Your task to perform on an android device: Add "bose soundlink mini" to the cart on bestbuy.com Image 0: 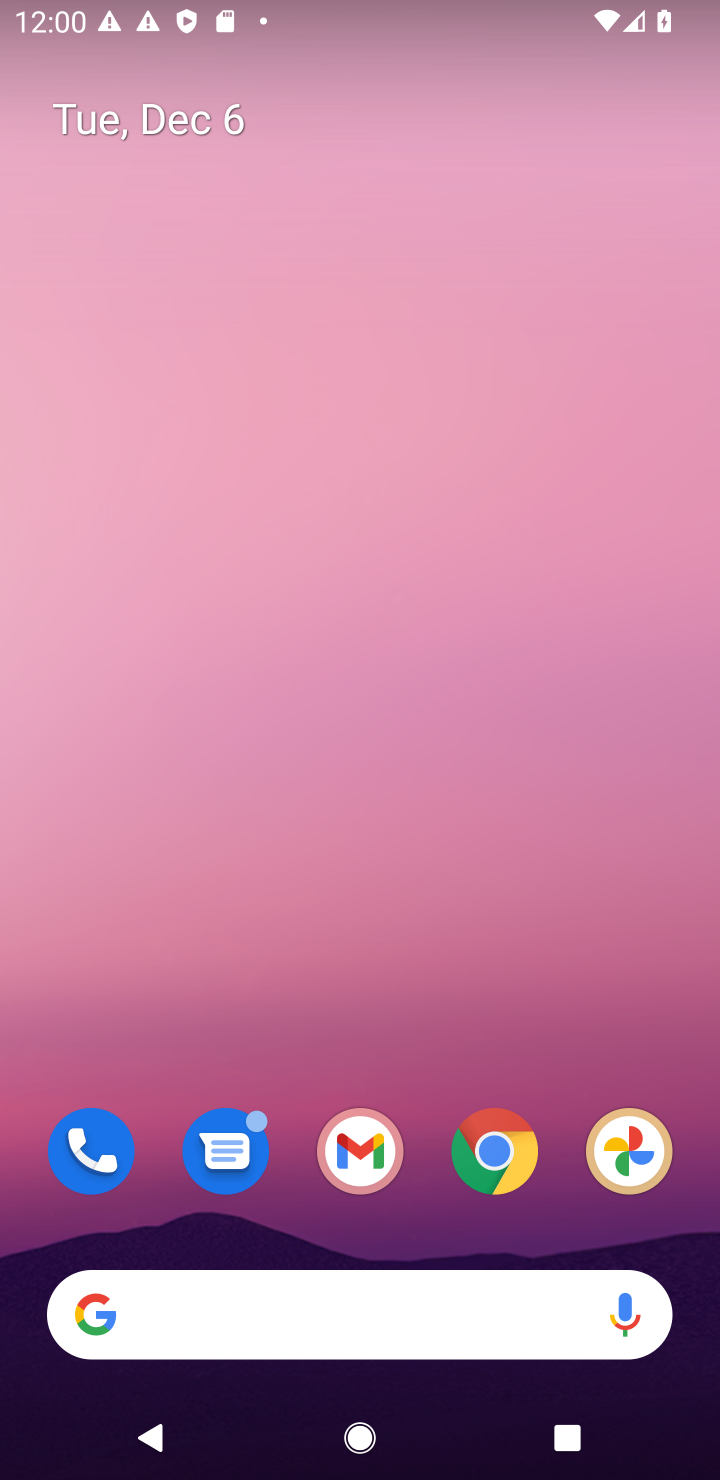
Step 0: click (497, 1178)
Your task to perform on an android device: Add "bose soundlink mini" to the cart on bestbuy.com Image 1: 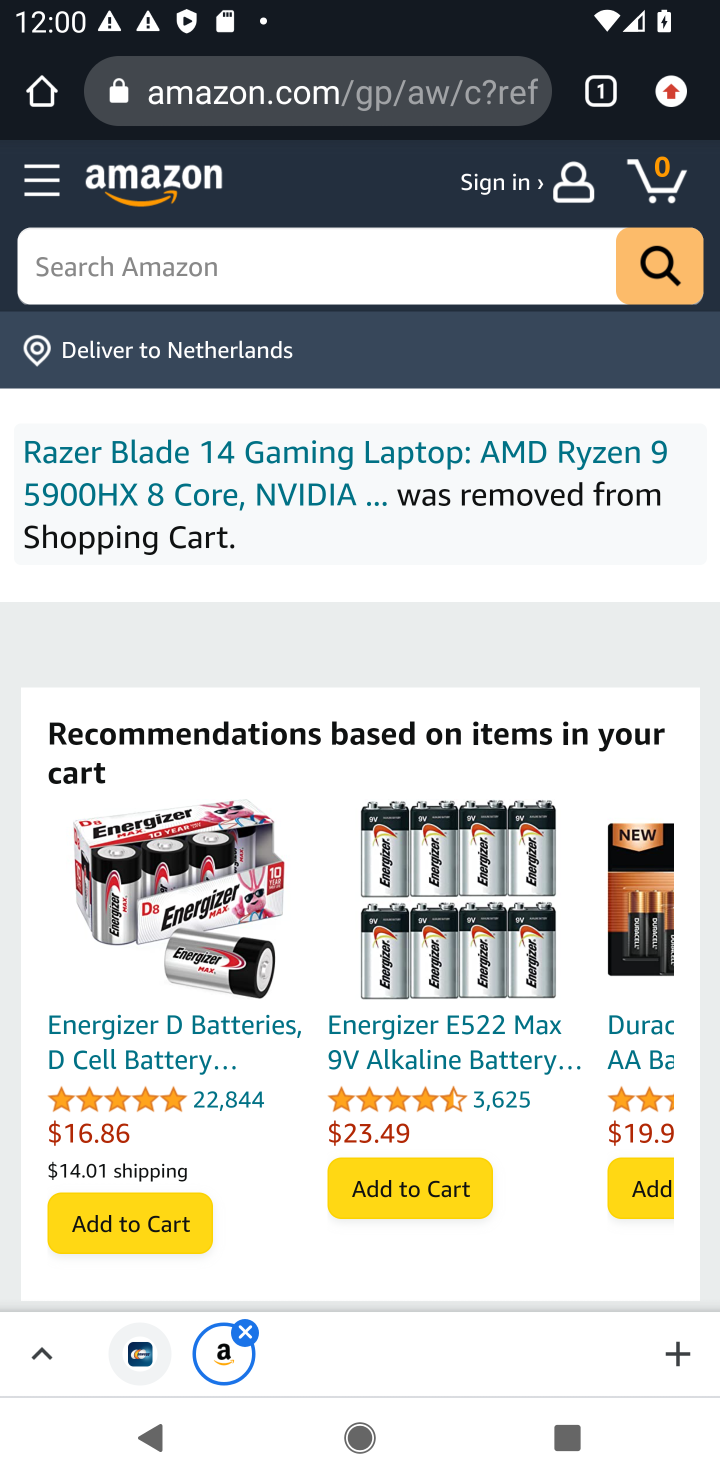
Step 1: click (264, 104)
Your task to perform on an android device: Add "bose soundlink mini" to the cart on bestbuy.com Image 2: 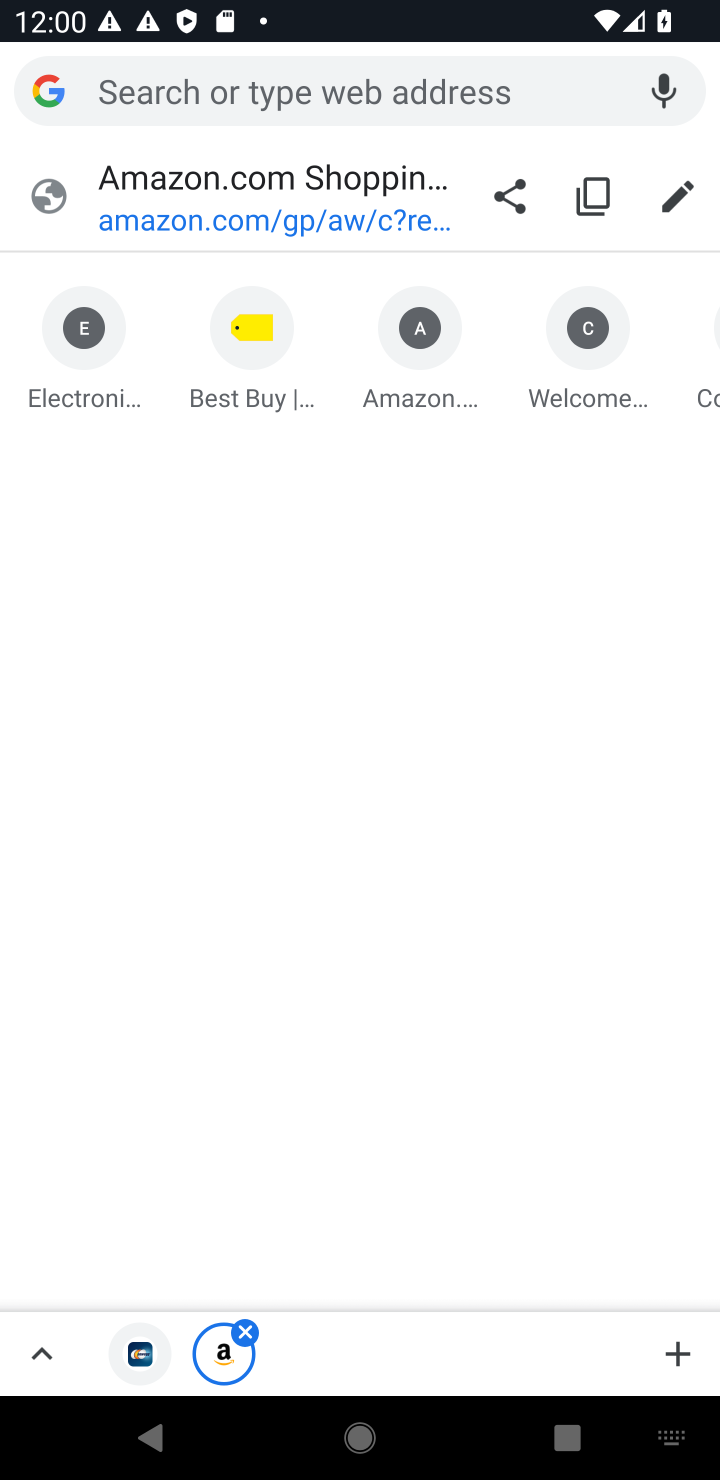
Step 2: click (258, 381)
Your task to perform on an android device: Add "bose soundlink mini" to the cart on bestbuy.com Image 3: 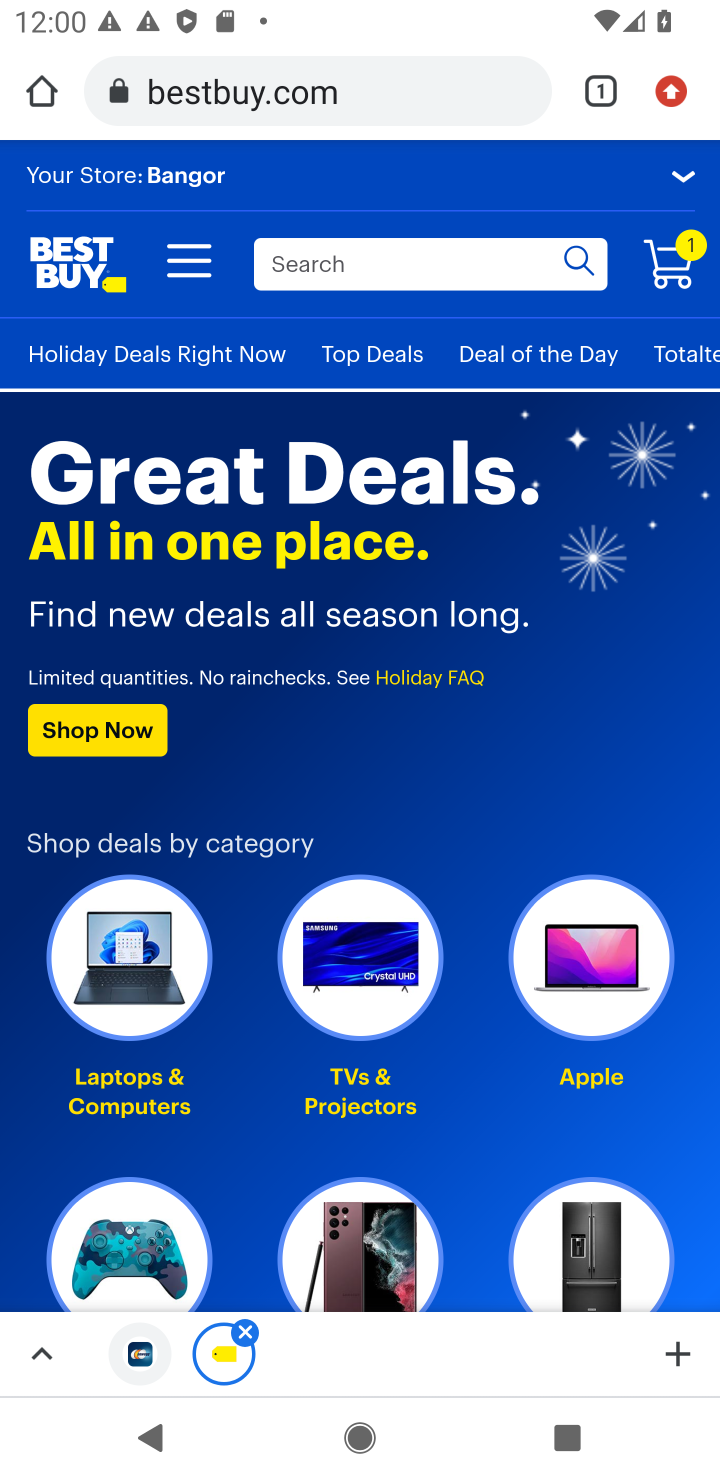
Step 3: click (320, 276)
Your task to perform on an android device: Add "bose soundlink mini" to the cart on bestbuy.com Image 4: 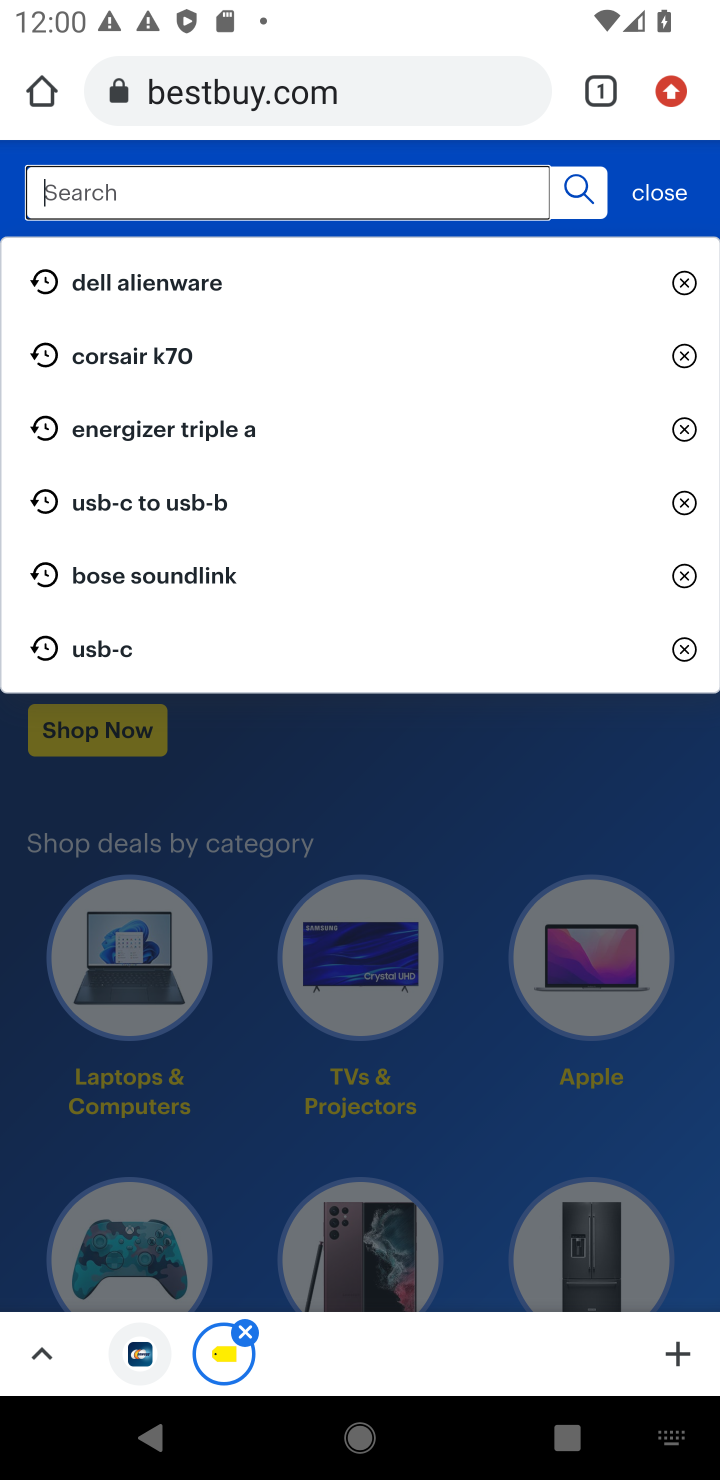
Step 4: type "bose soundlink mini"
Your task to perform on an android device: Add "bose soundlink mini" to the cart on bestbuy.com Image 5: 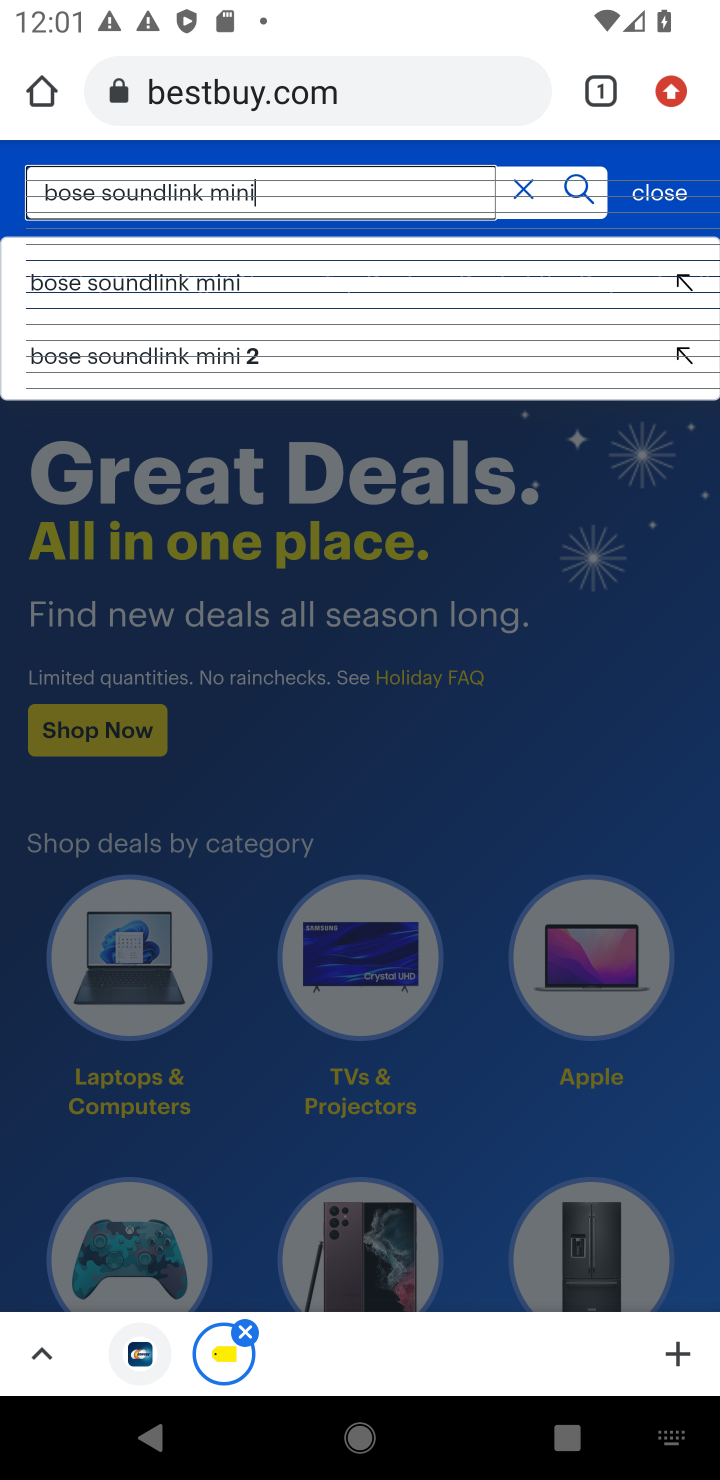
Step 5: click (158, 288)
Your task to perform on an android device: Add "bose soundlink mini" to the cart on bestbuy.com Image 6: 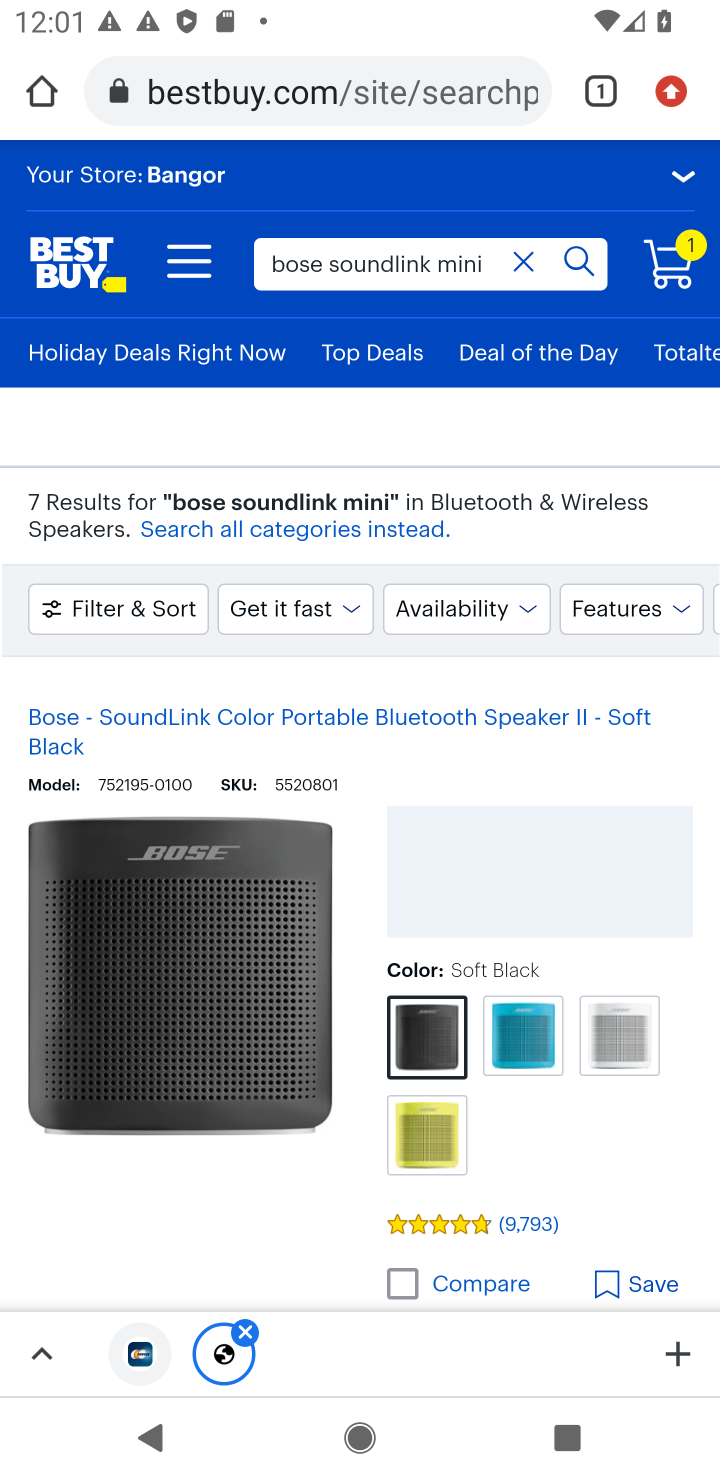
Step 6: task complete